Your task to perform on an android device: turn on bluetooth scan Image 0: 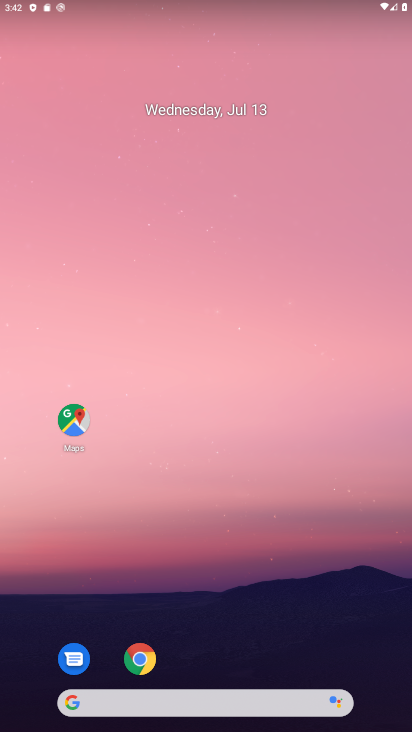
Step 0: drag from (220, 652) to (232, 215)
Your task to perform on an android device: turn on bluetooth scan Image 1: 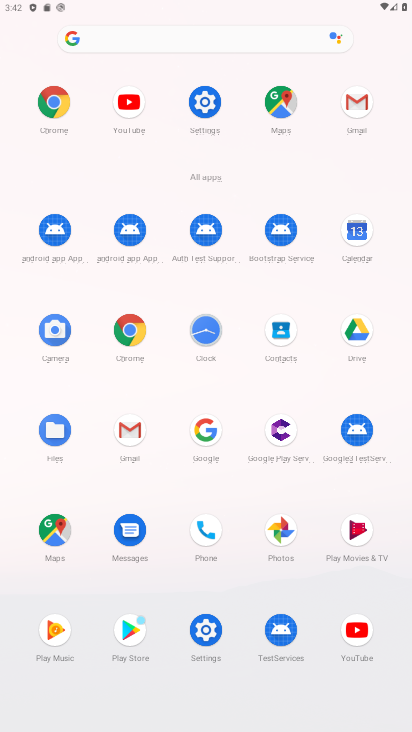
Step 1: click (200, 96)
Your task to perform on an android device: turn on bluetooth scan Image 2: 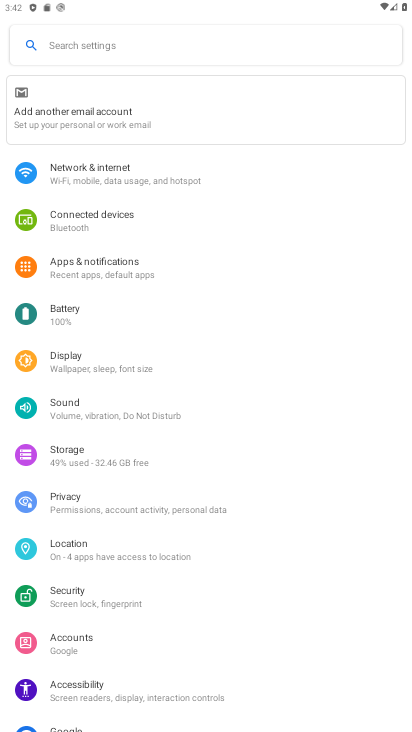
Step 2: click (94, 542)
Your task to perform on an android device: turn on bluetooth scan Image 3: 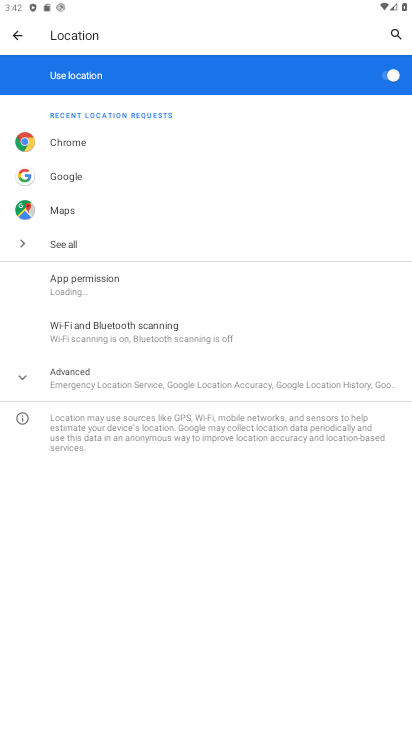
Step 3: click (113, 323)
Your task to perform on an android device: turn on bluetooth scan Image 4: 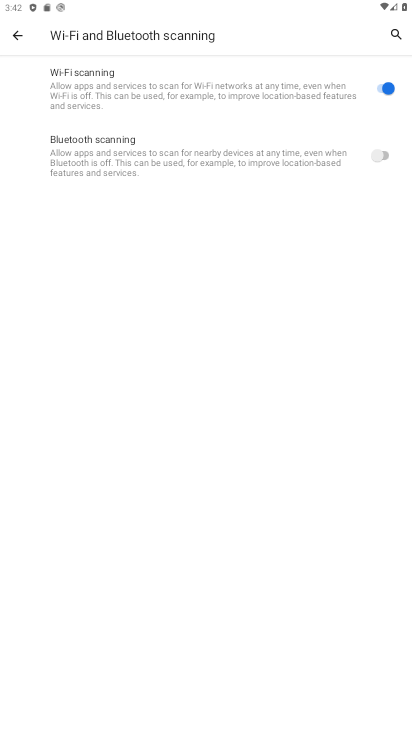
Step 4: click (376, 153)
Your task to perform on an android device: turn on bluetooth scan Image 5: 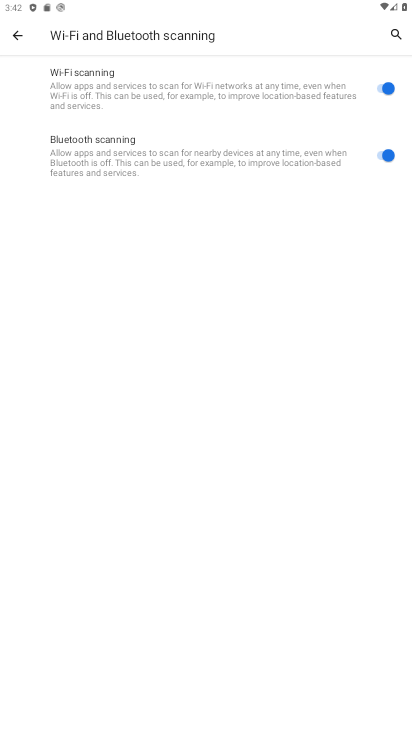
Step 5: task complete